Your task to perform on an android device: star an email in the gmail app Image 0: 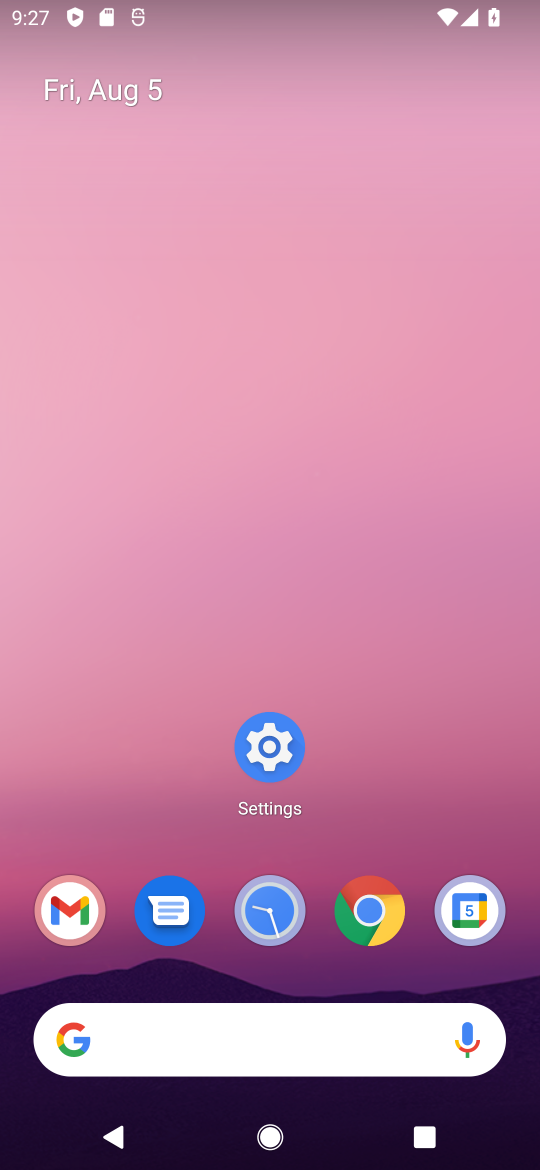
Step 0: press home button
Your task to perform on an android device: star an email in the gmail app Image 1: 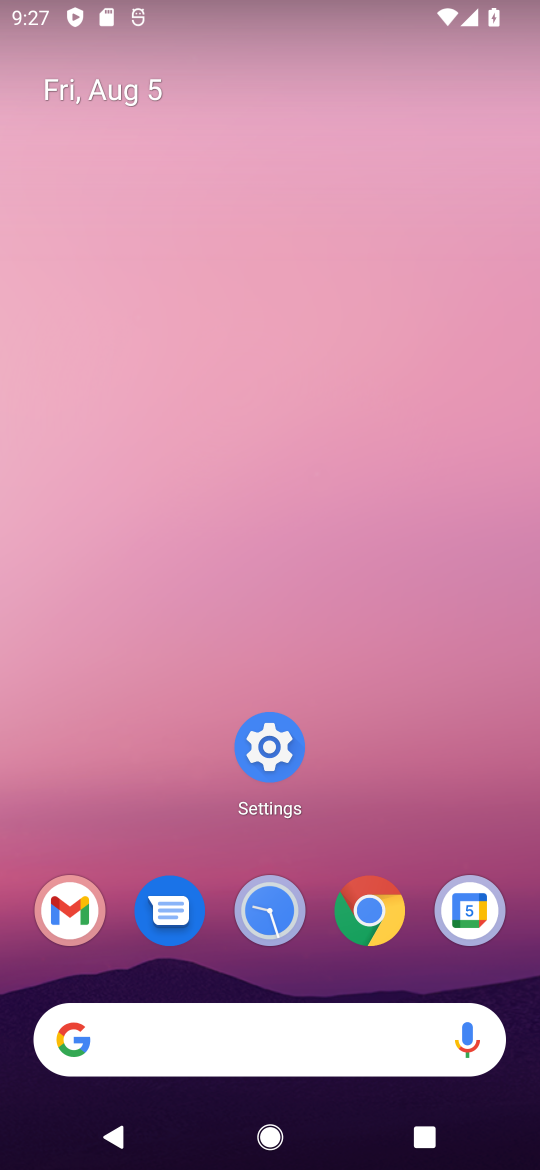
Step 1: click (83, 912)
Your task to perform on an android device: star an email in the gmail app Image 2: 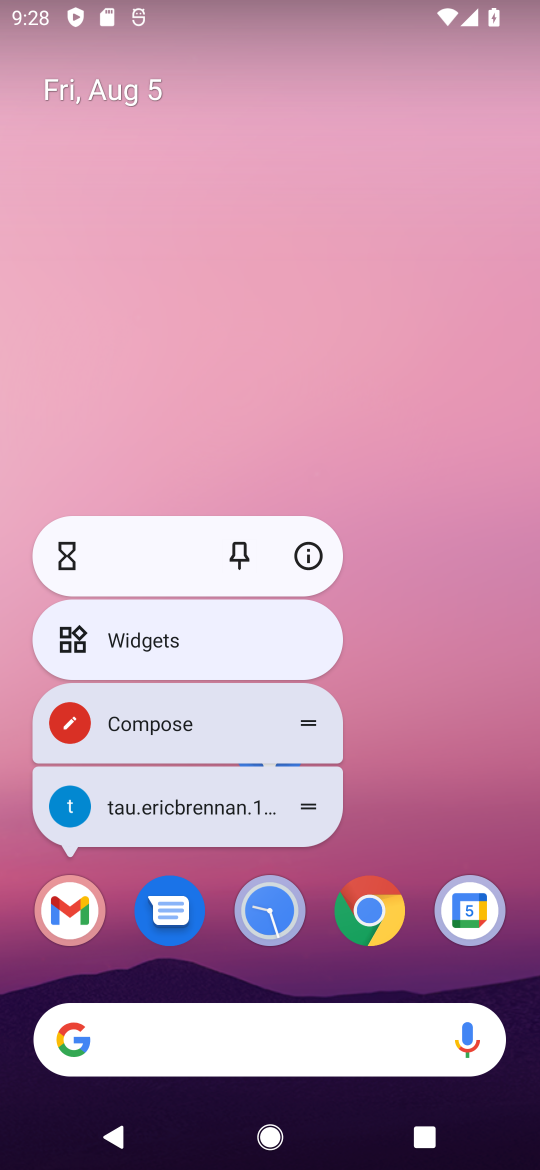
Step 2: click (83, 912)
Your task to perform on an android device: star an email in the gmail app Image 3: 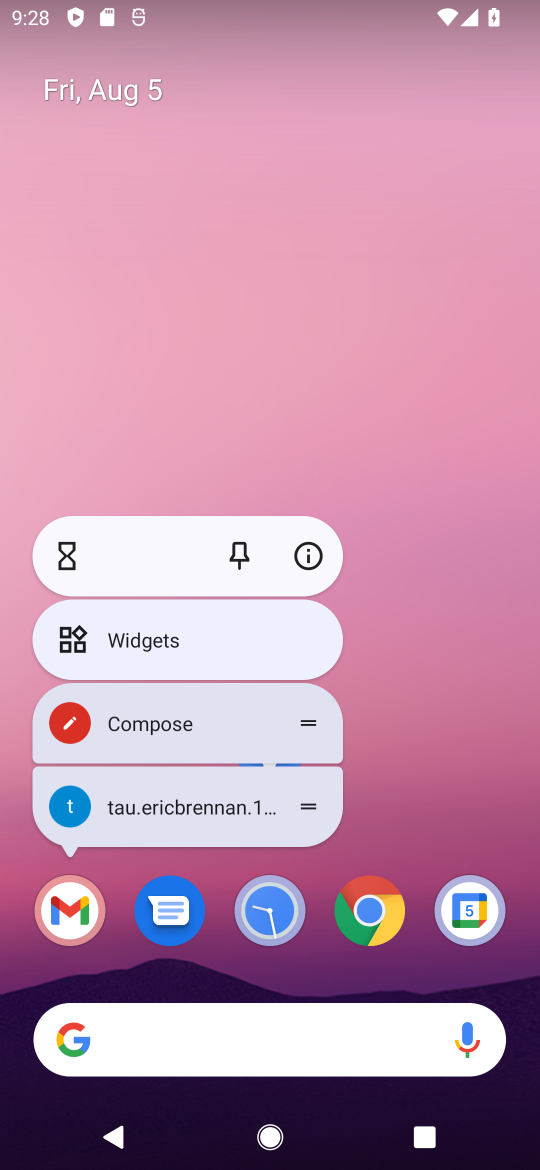
Step 3: click (64, 911)
Your task to perform on an android device: star an email in the gmail app Image 4: 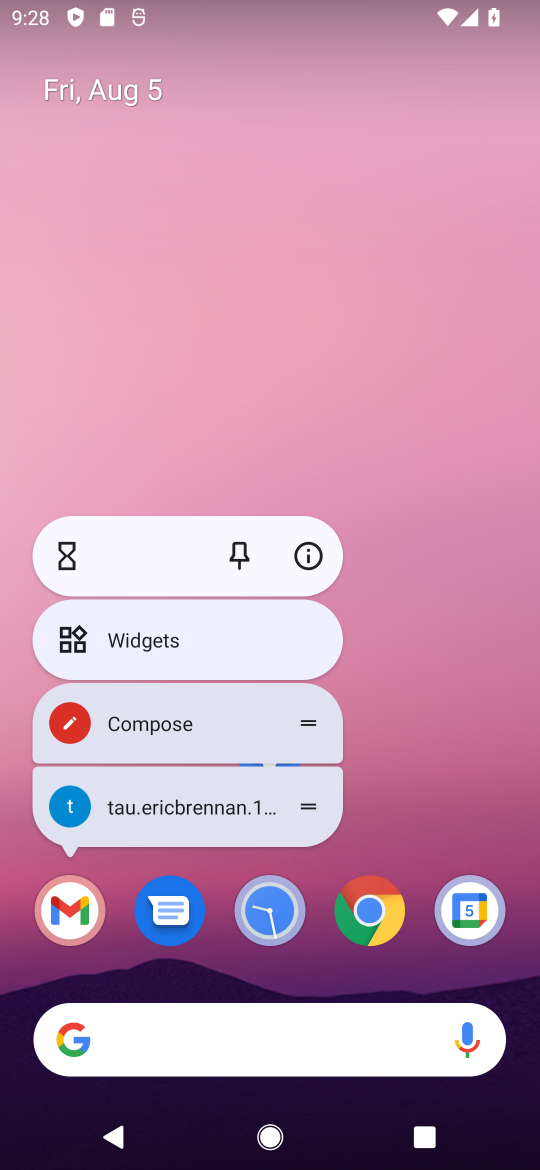
Step 4: click (64, 912)
Your task to perform on an android device: star an email in the gmail app Image 5: 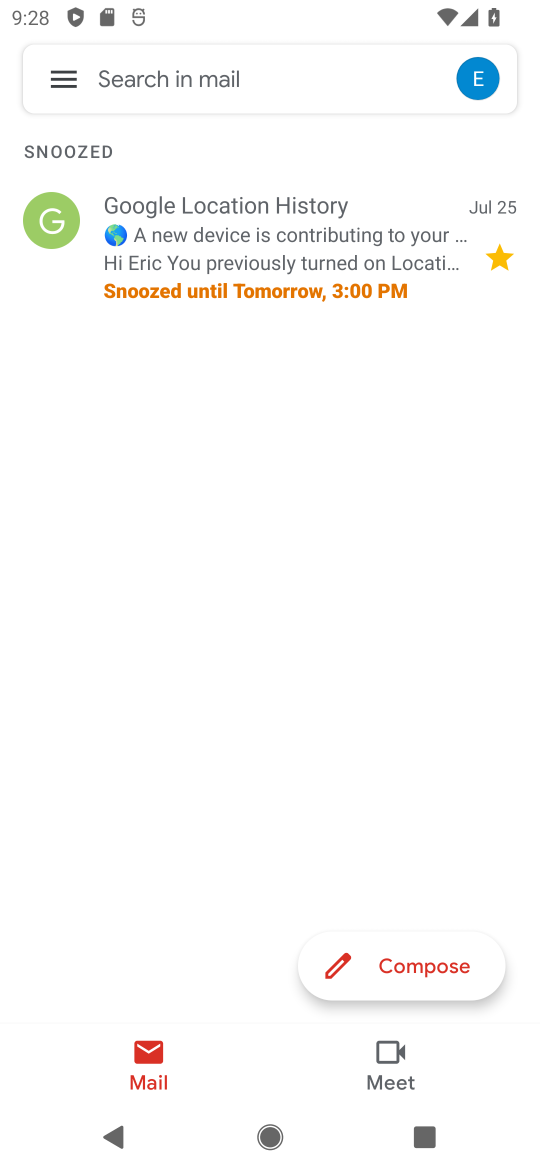
Step 5: click (67, 73)
Your task to perform on an android device: star an email in the gmail app Image 6: 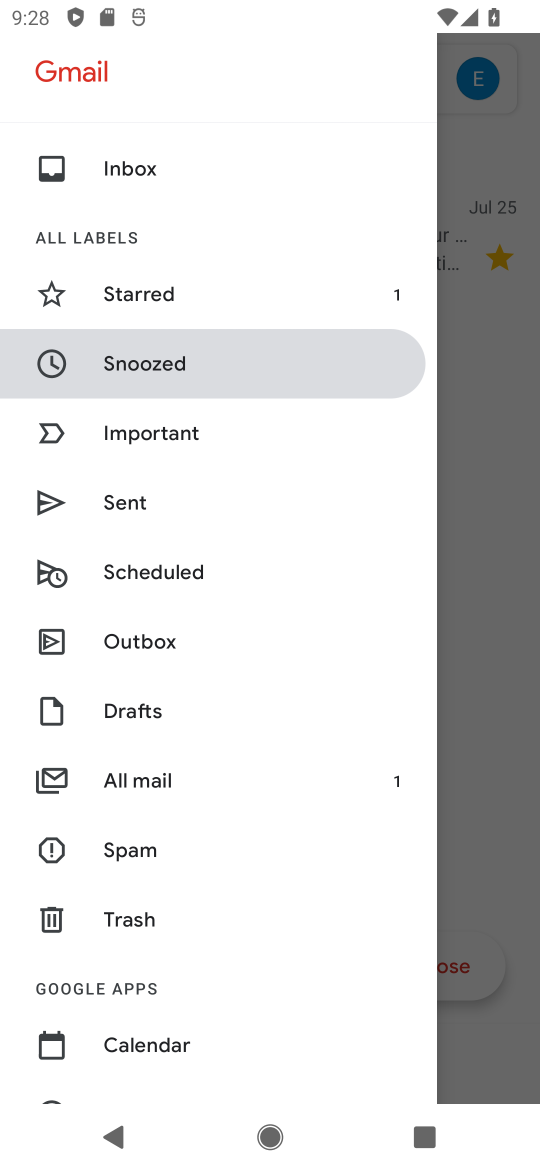
Step 6: click (164, 767)
Your task to perform on an android device: star an email in the gmail app Image 7: 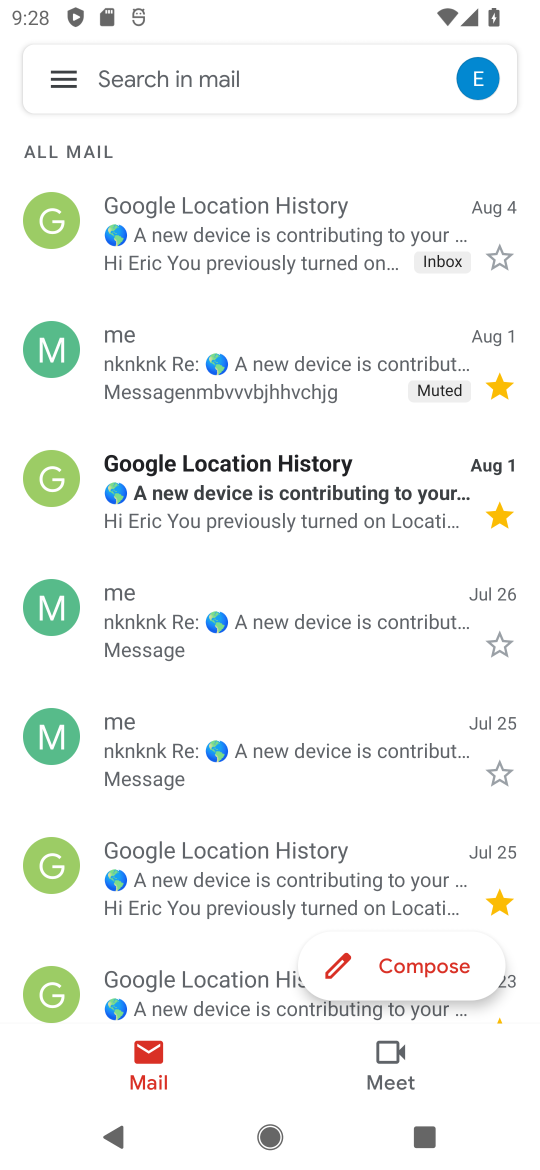
Step 7: click (66, 216)
Your task to perform on an android device: star an email in the gmail app Image 8: 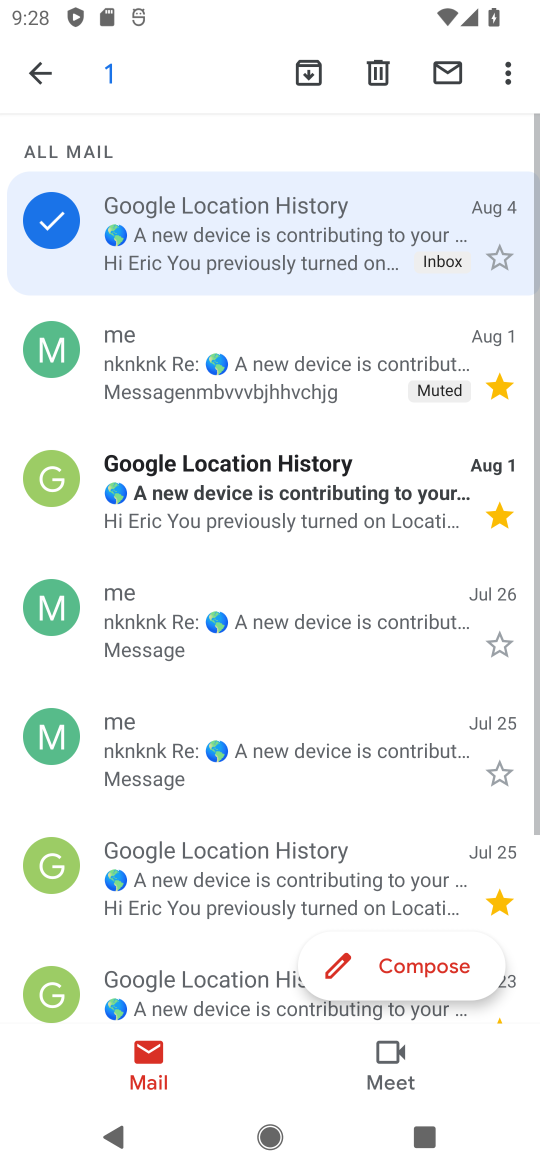
Step 8: click (512, 76)
Your task to perform on an android device: star an email in the gmail app Image 9: 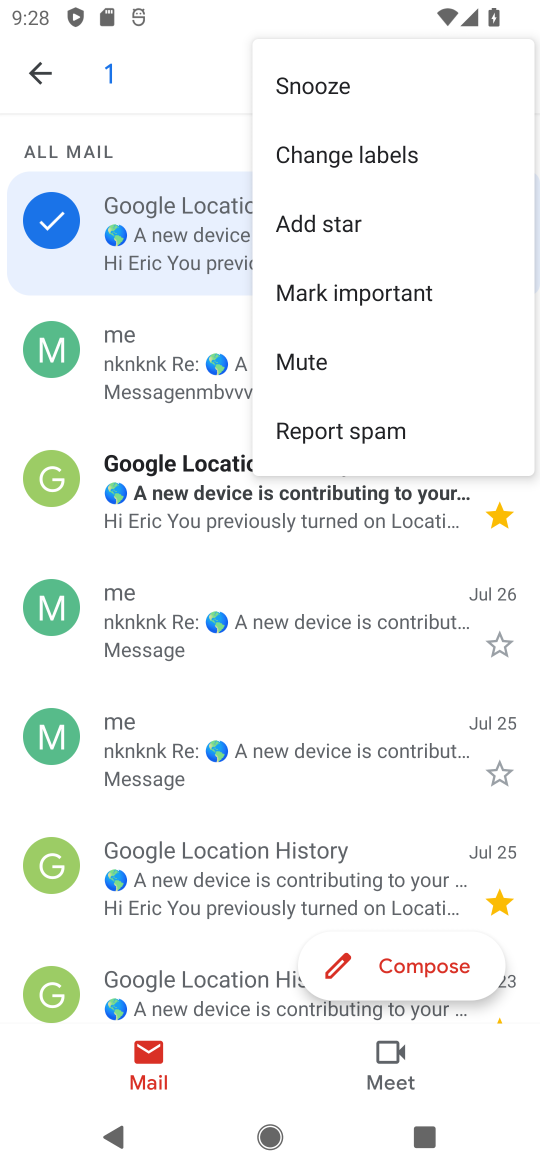
Step 9: click (327, 218)
Your task to perform on an android device: star an email in the gmail app Image 10: 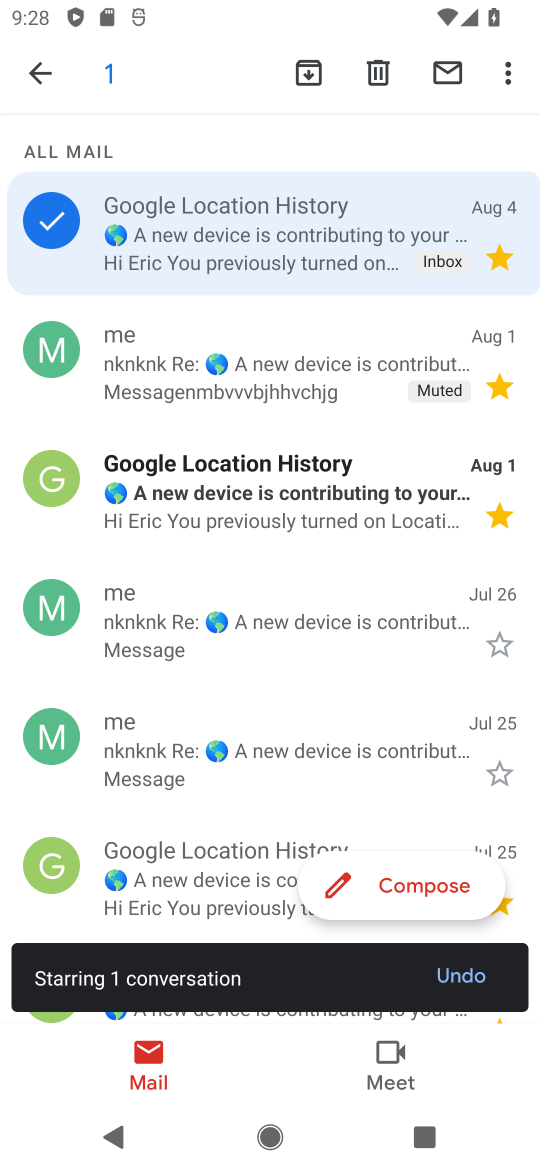
Step 10: click (65, 224)
Your task to perform on an android device: star an email in the gmail app Image 11: 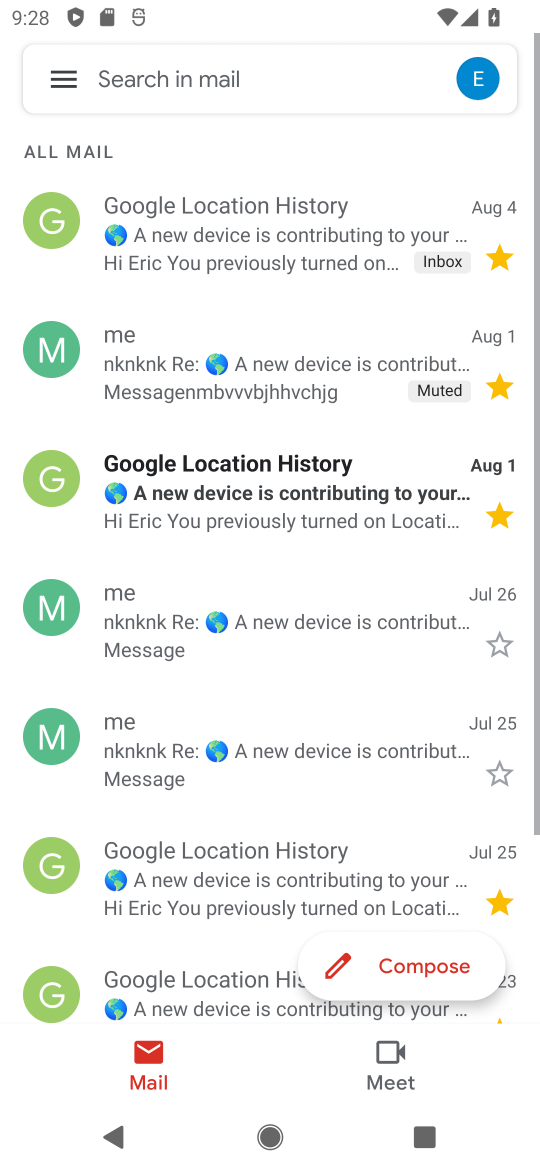
Step 11: task complete